Your task to perform on an android device: turn off notifications settings in the gmail app Image 0: 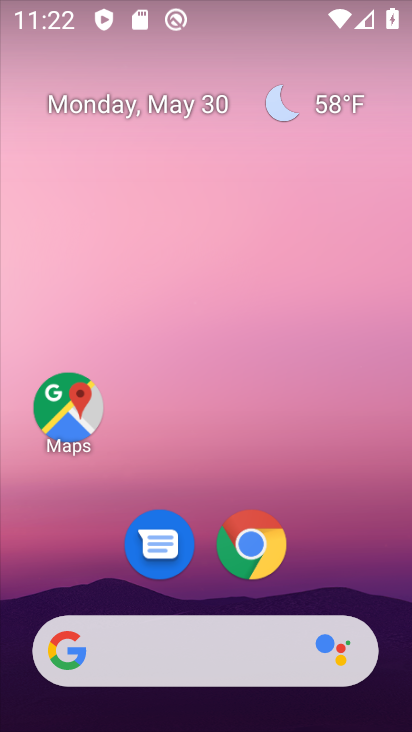
Step 0: drag from (394, 593) to (344, 266)
Your task to perform on an android device: turn off notifications settings in the gmail app Image 1: 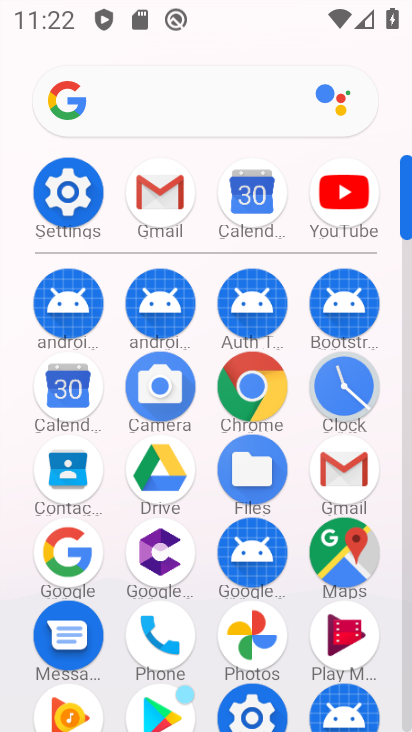
Step 1: click (144, 203)
Your task to perform on an android device: turn off notifications settings in the gmail app Image 2: 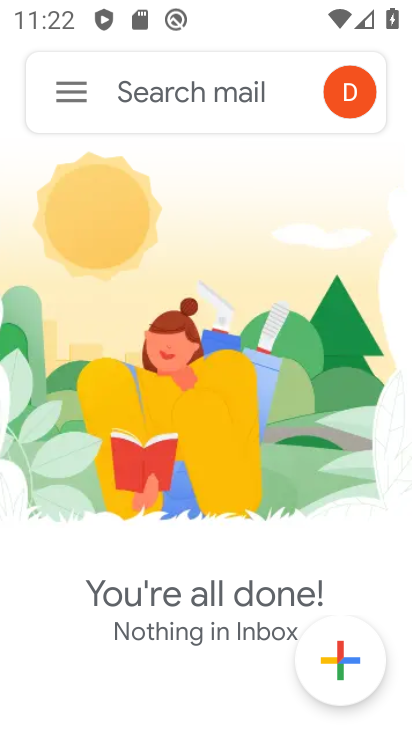
Step 2: click (52, 110)
Your task to perform on an android device: turn off notifications settings in the gmail app Image 3: 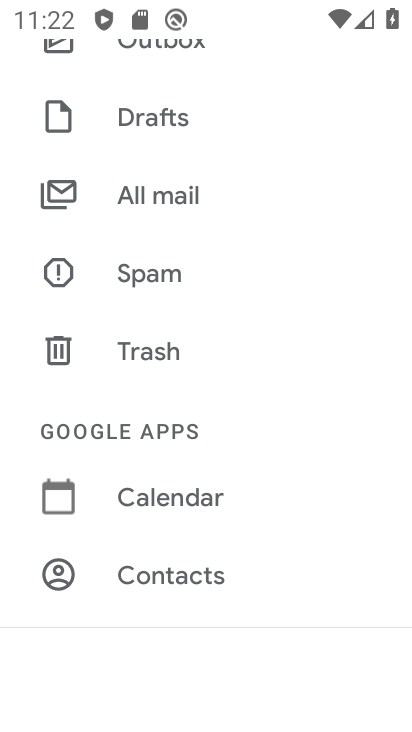
Step 3: drag from (107, 542) to (155, 201)
Your task to perform on an android device: turn off notifications settings in the gmail app Image 4: 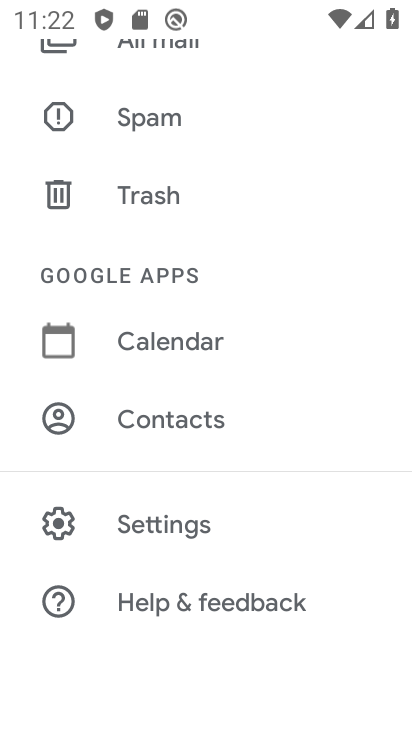
Step 4: click (192, 504)
Your task to perform on an android device: turn off notifications settings in the gmail app Image 5: 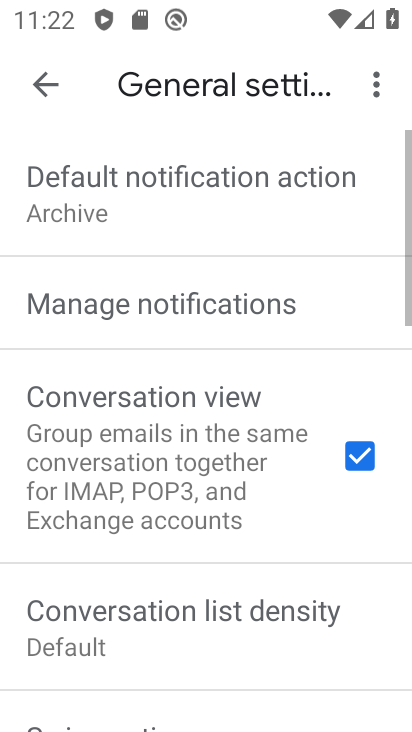
Step 5: task complete